Your task to perform on an android device: toggle translation in the chrome app Image 0: 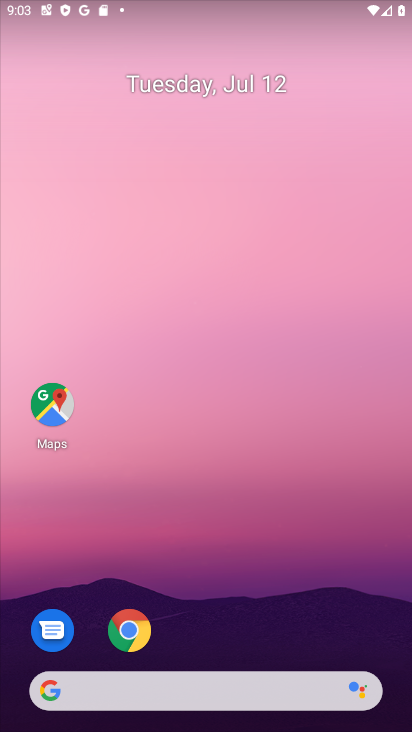
Step 0: click (194, 641)
Your task to perform on an android device: toggle translation in the chrome app Image 1: 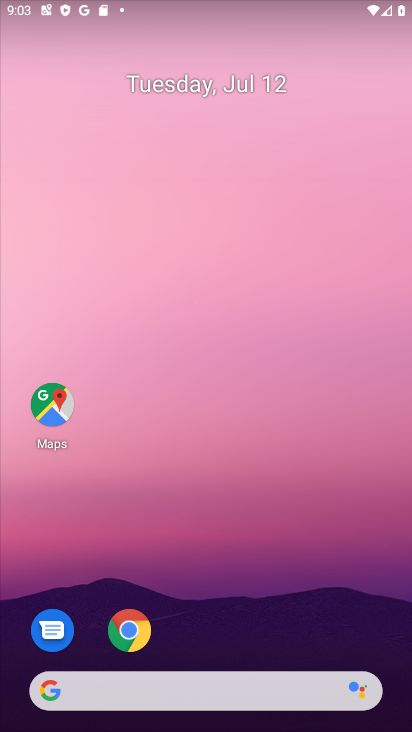
Step 1: click (130, 629)
Your task to perform on an android device: toggle translation in the chrome app Image 2: 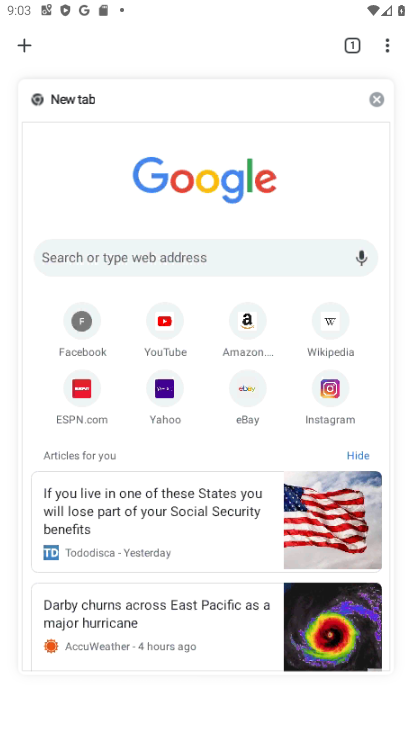
Step 2: click (389, 43)
Your task to perform on an android device: toggle translation in the chrome app Image 3: 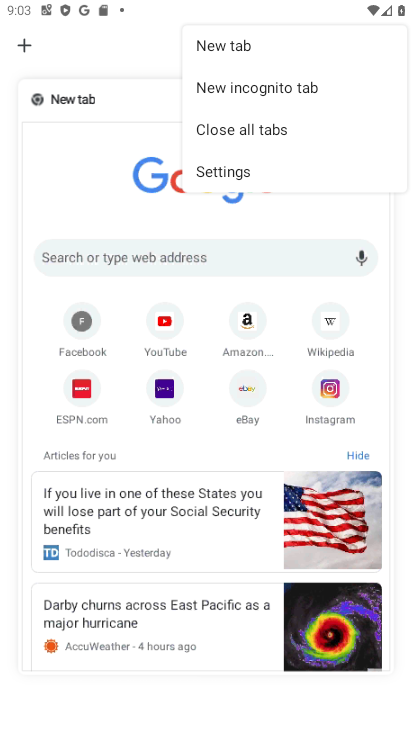
Step 3: click (229, 176)
Your task to perform on an android device: toggle translation in the chrome app Image 4: 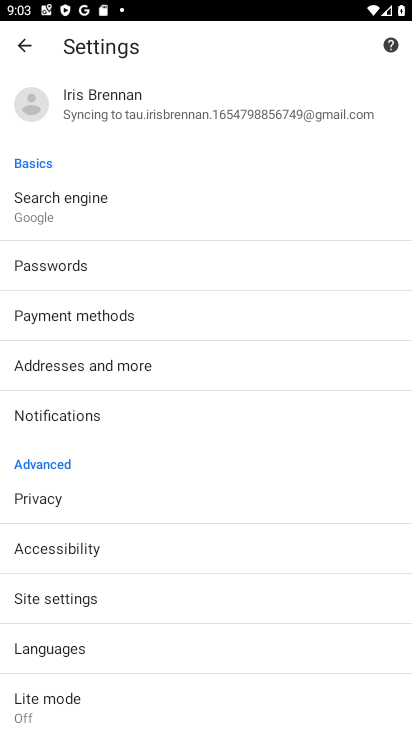
Step 4: drag from (227, 666) to (202, 446)
Your task to perform on an android device: toggle translation in the chrome app Image 5: 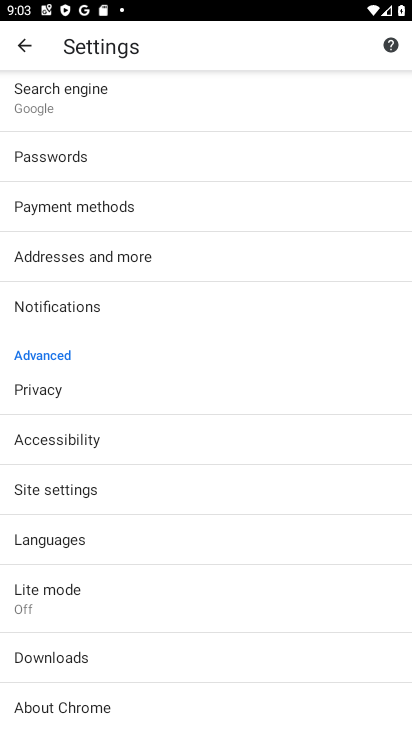
Step 5: click (78, 549)
Your task to perform on an android device: toggle translation in the chrome app Image 6: 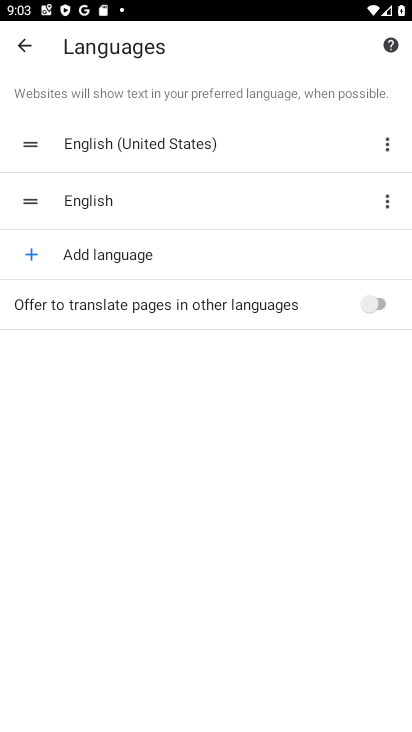
Step 6: click (377, 300)
Your task to perform on an android device: toggle translation in the chrome app Image 7: 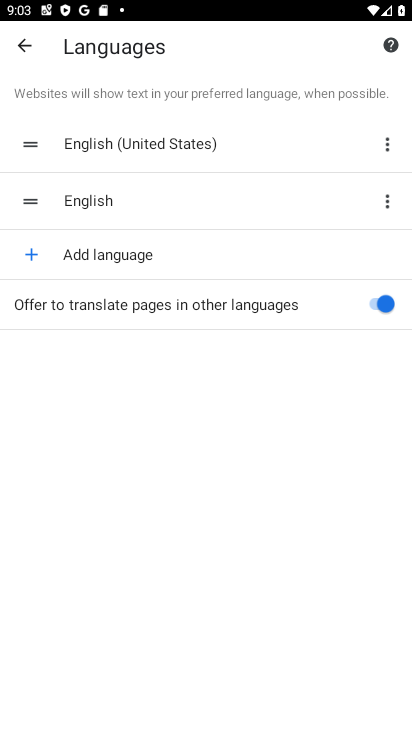
Step 7: task complete